Your task to perform on an android device: check android version Image 0: 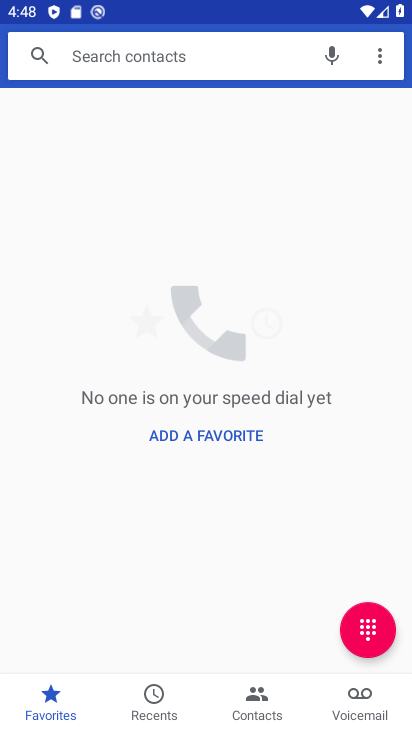
Step 0: press home button
Your task to perform on an android device: check android version Image 1: 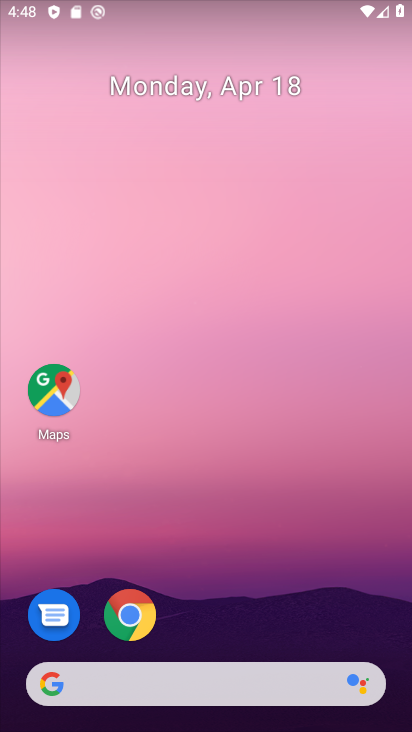
Step 1: drag from (255, 636) to (234, 55)
Your task to perform on an android device: check android version Image 2: 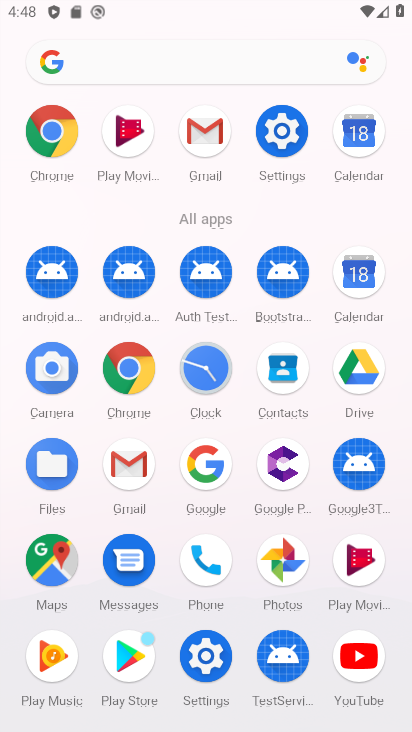
Step 2: click (208, 656)
Your task to perform on an android device: check android version Image 3: 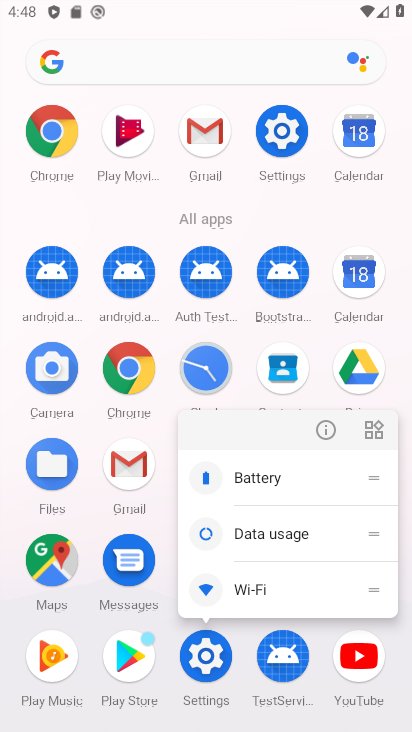
Step 3: click (205, 659)
Your task to perform on an android device: check android version Image 4: 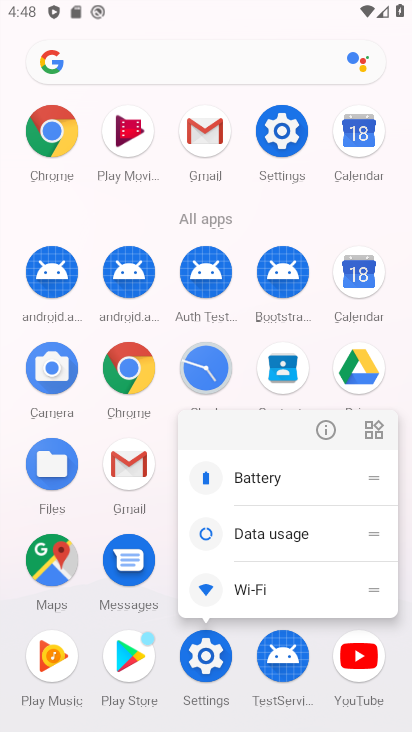
Step 4: click (192, 657)
Your task to perform on an android device: check android version Image 5: 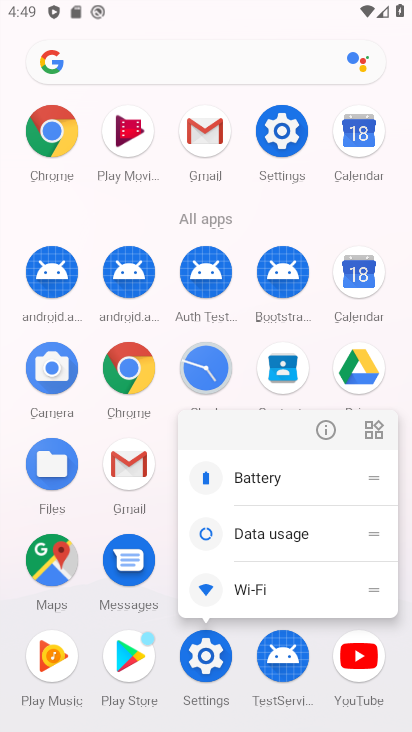
Step 5: click (192, 657)
Your task to perform on an android device: check android version Image 6: 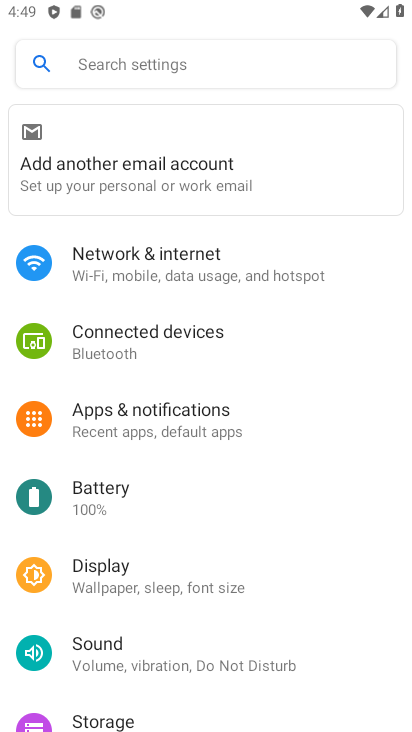
Step 6: drag from (354, 679) to (345, 154)
Your task to perform on an android device: check android version Image 7: 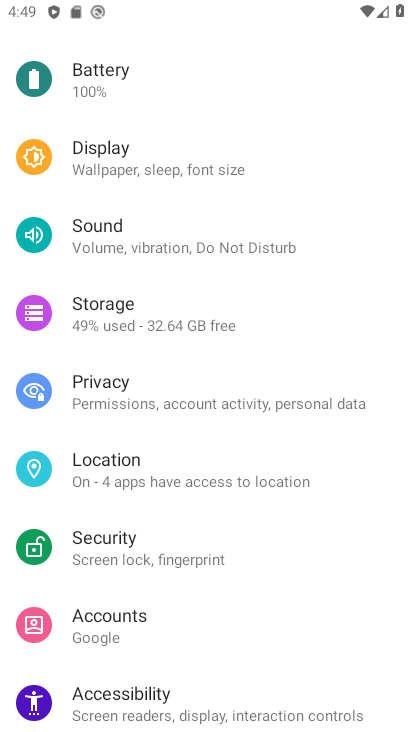
Step 7: drag from (382, 658) to (368, 219)
Your task to perform on an android device: check android version Image 8: 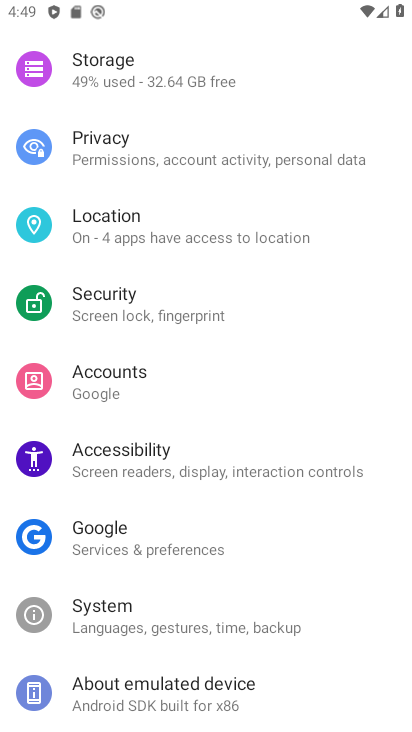
Step 8: click (166, 689)
Your task to perform on an android device: check android version Image 9: 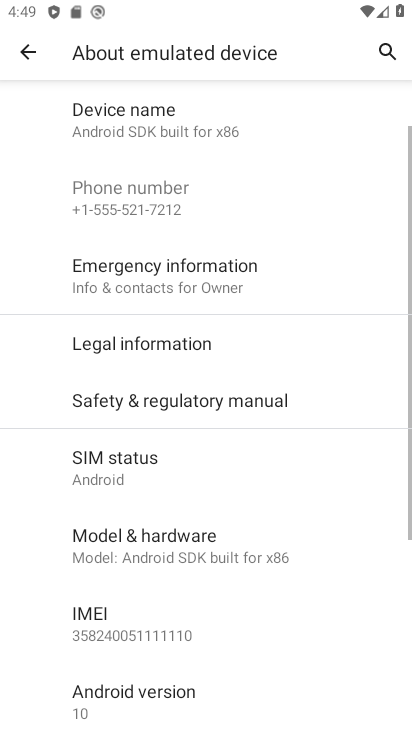
Step 9: click (137, 686)
Your task to perform on an android device: check android version Image 10: 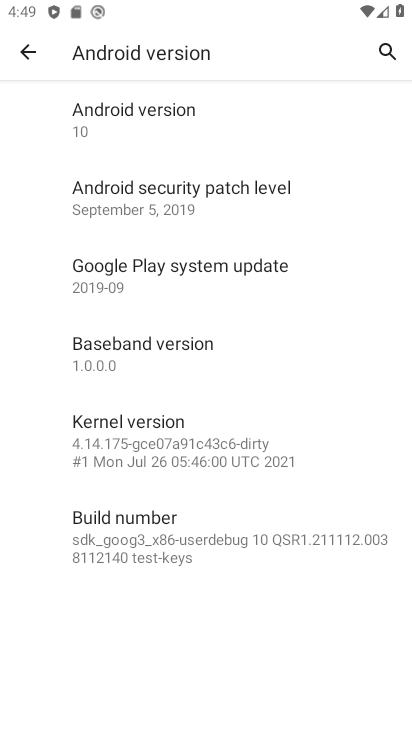
Step 10: click (111, 118)
Your task to perform on an android device: check android version Image 11: 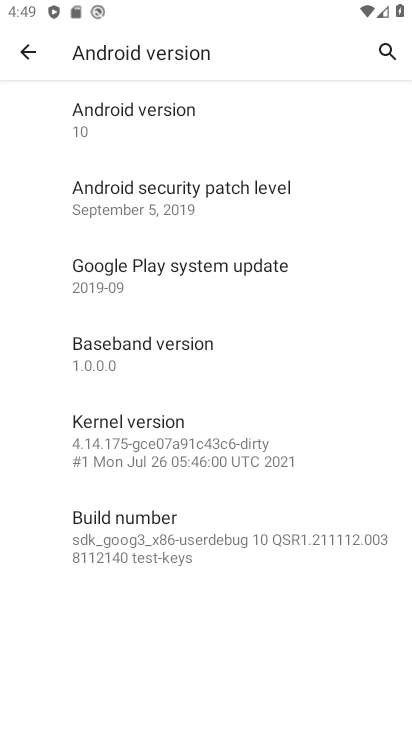
Step 11: task complete